Your task to perform on an android device: read, delete, or share a saved page in the chrome app Image 0: 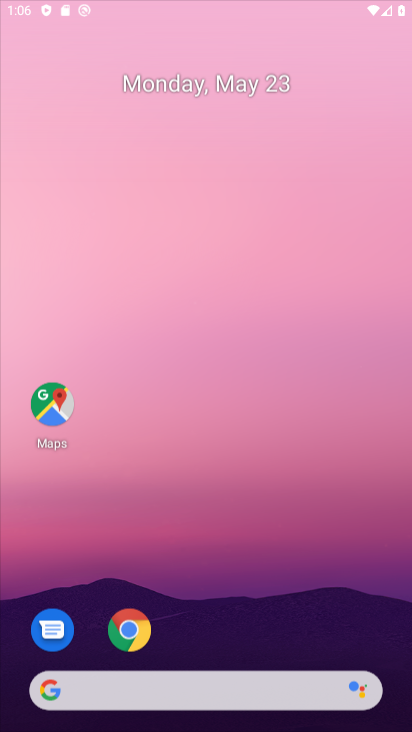
Step 0: click (223, 122)
Your task to perform on an android device: read, delete, or share a saved page in the chrome app Image 1: 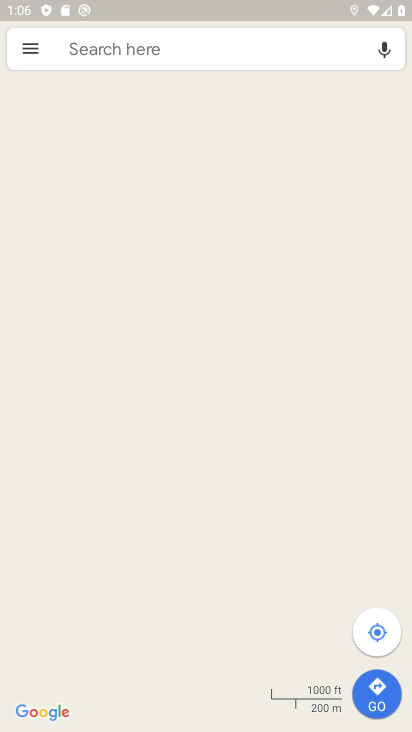
Step 1: press home button
Your task to perform on an android device: read, delete, or share a saved page in the chrome app Image 2: 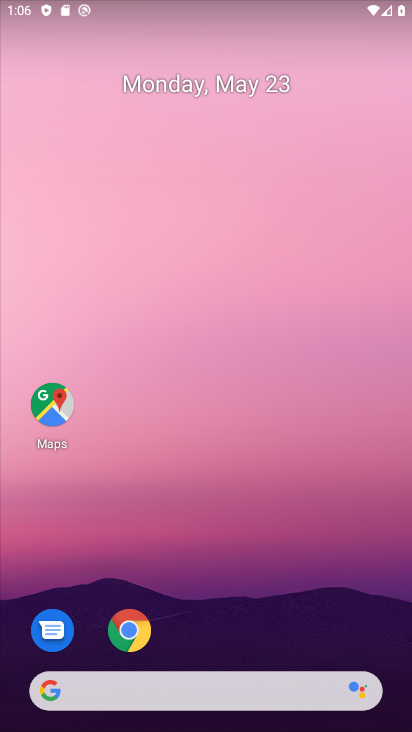
Step 2: click (131, 633)
Your task to perform on an android device: read, delete, or share a saved page in the chrome app Image 3: 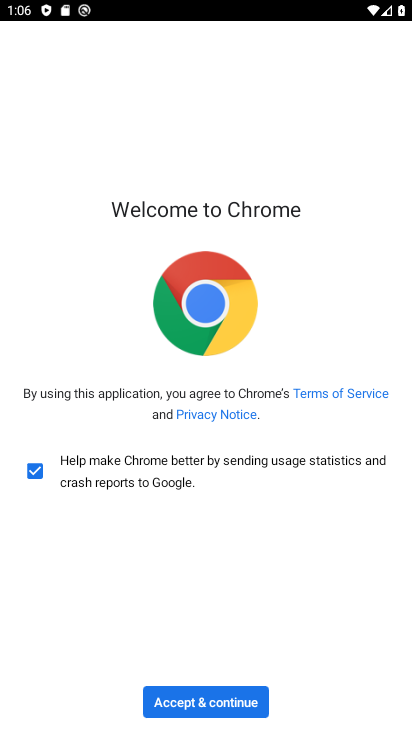
Step 3: click (198, 700)
Your task to perform on an android device: read, delete, or share a saved page in the chrome app Image 4: 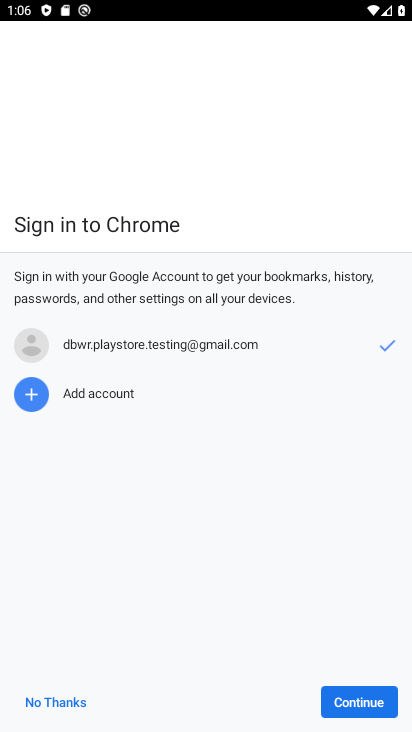
Step 4: click (348, 698)
Your task to perform on an android device: read, delete, or share a saved page in the chrome app Image 5: 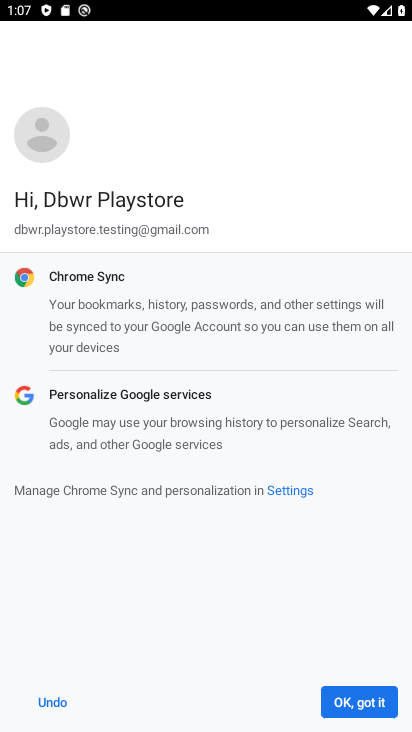
Step 5: click (348, 698)
Your task to perform on an android device: read, delete, or share a saved page in the chrome app Image 6: 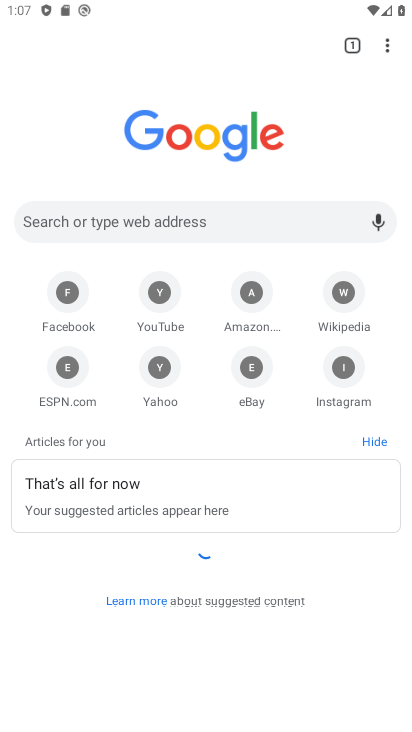
Step 6: click (380, 42)
Your task to perform on an android device: read, delete, or share a saved page in the chrome app Image 7: 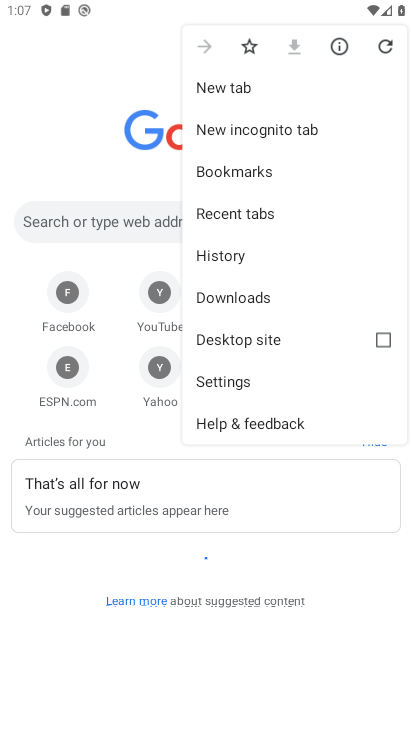
Step 7: click (248, 385)
Your task to perform on an android device: read, delete, or share a saved page in the chrome app Image 8: 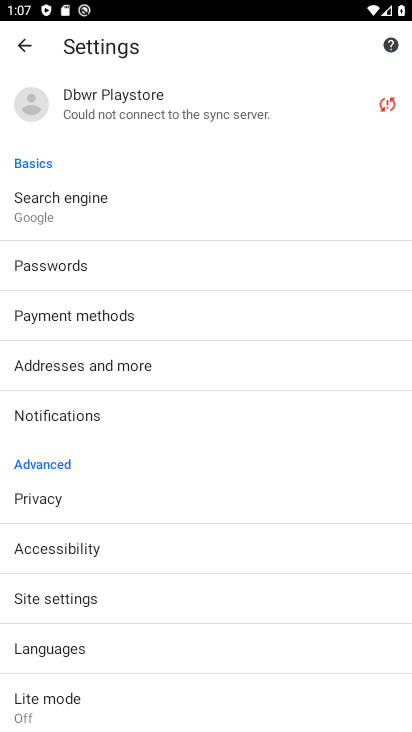
Step 8: press back button
Your task to perform on an android device: read, delete, or share a saved page in the chrome app Image 9: 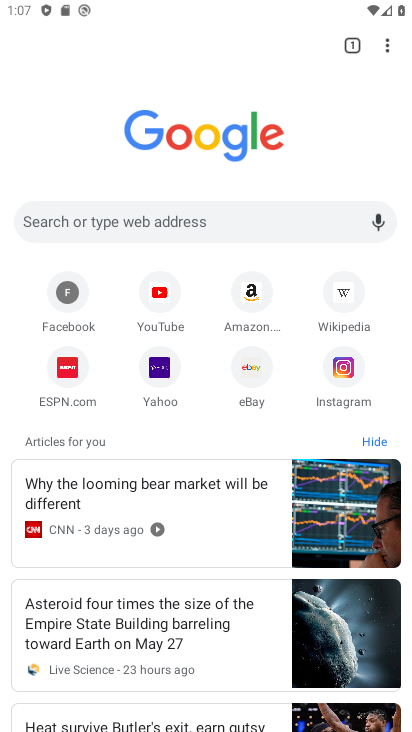
Step 9: click (383, 42)
Your task to perform on an android device: read, delete, or share a saved page in the chrome app Image 10: 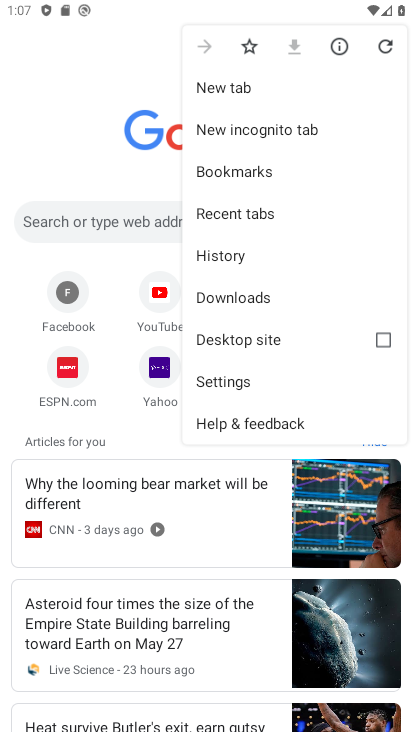
Step 10: click (243, 298)
Your task to perform on an android device: read, delete, or share a saved page in the chrome app Image 11: 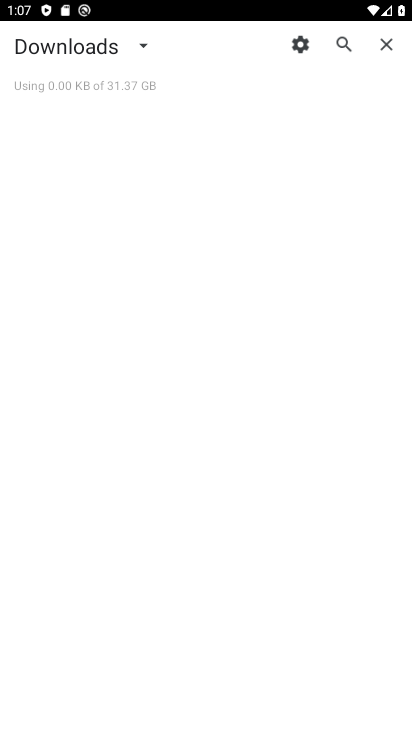
Step 11: task complete